Your task to perform on an android device: Search for Italian restaurants on Maps Image 0: 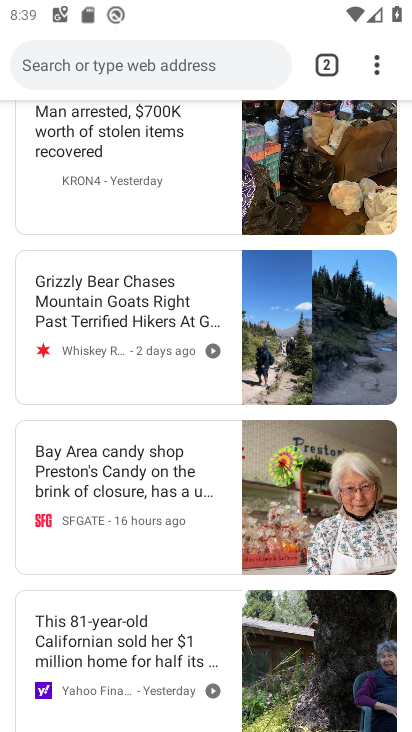
Step 0: press home button
Your task to perform on an android device: Search for Italian restaurants on Maps Image 1: 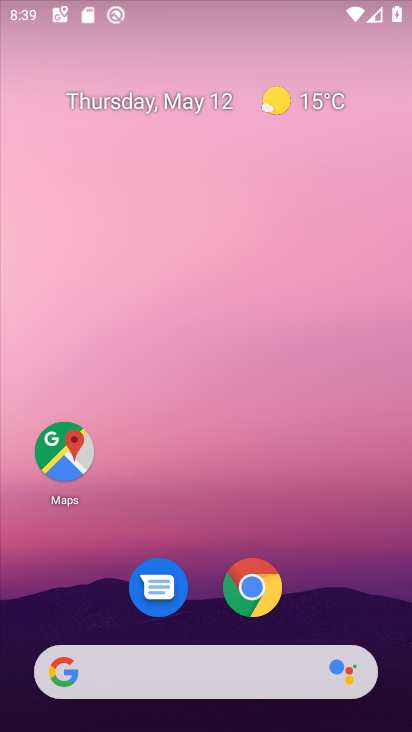
Step 1: drag from (358, 588) to (301, 59)
Your task to perform on an android device: Search for Italian restaurants on Maps Image 2: 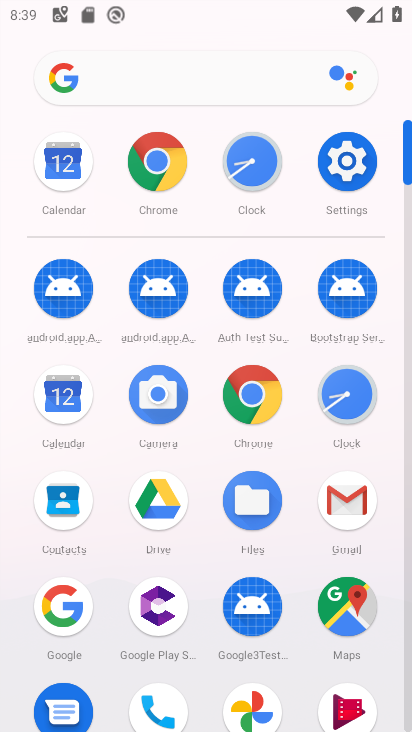
Step 2: click (363, 605)
Your task to perform on an android device: Search for Italian restaurants on Maps Image 3: 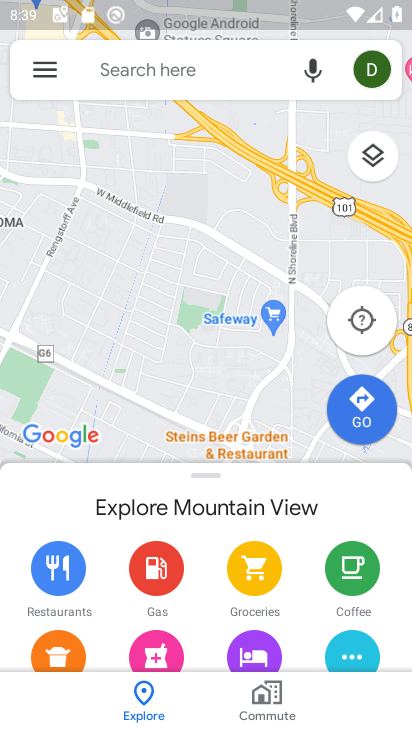
Step 3: click (160, 75)
Your task to perform on an android device: Search for Italian restaurants on Maps Image 4: 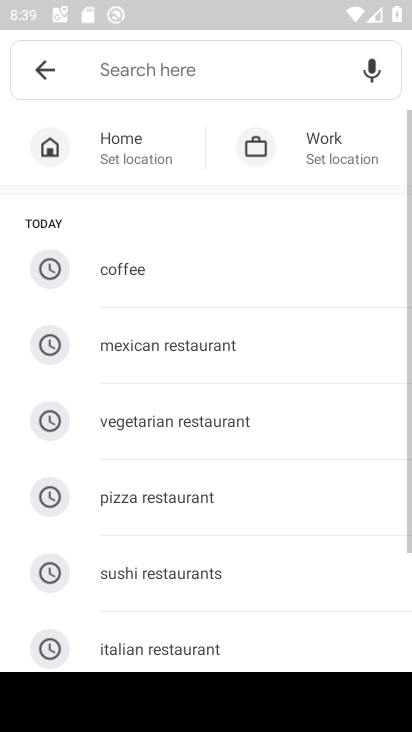
Step 4: click (185, 650)
Your task to perform on an android device: Search for Italian restaurants on Maps Image 5: 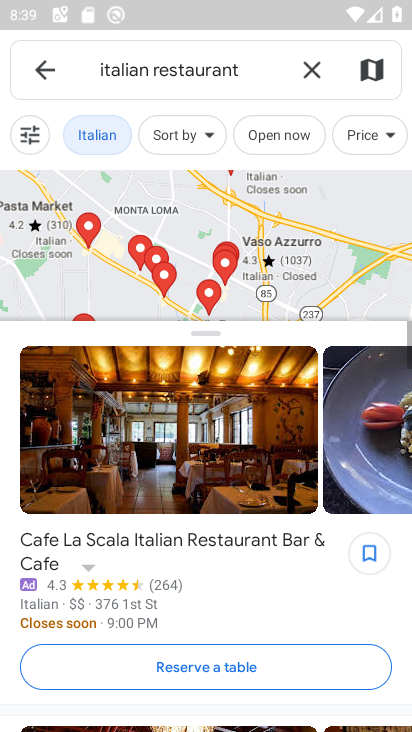
Step 5: task complete